Your task to perform on an android device: Open Reddit.com Image 0: 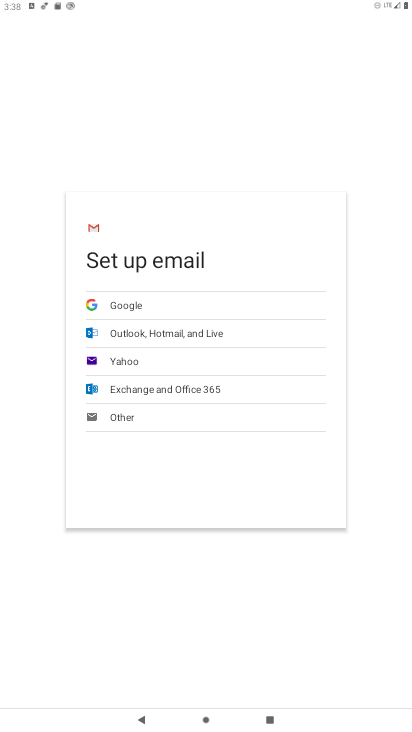
Step 0: press home button
Your task to perform on an android device: Open Reddit.com Image 1: 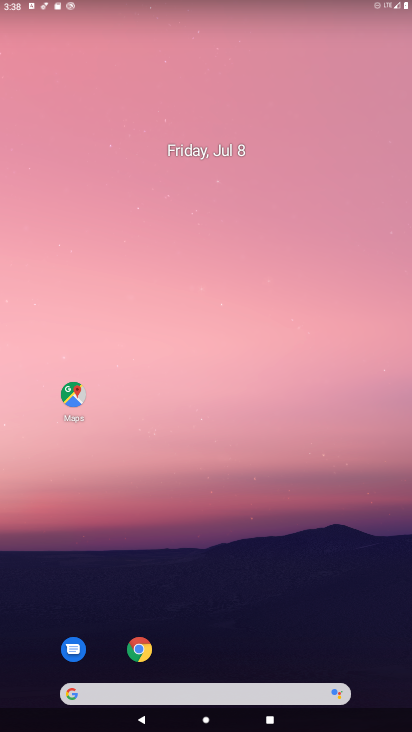
Step 1: click (140, 650)
Your task to perform on an android device: Open Reddit.com Image 2: 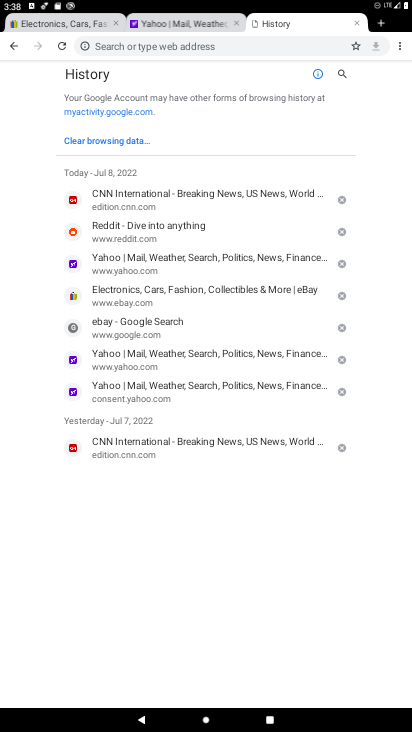
Step 2: press back button
Your task to perform on an android device: Open Reddit.com Image 3: 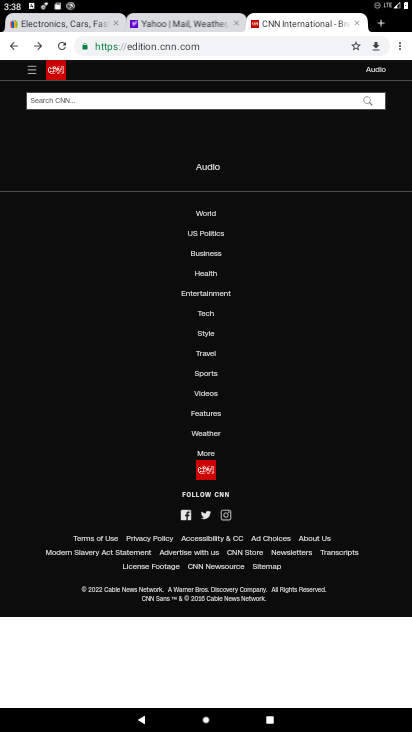
Step 3: click (222, 43)
Your task to perform on an android device: Open Reddit.com Image 4: 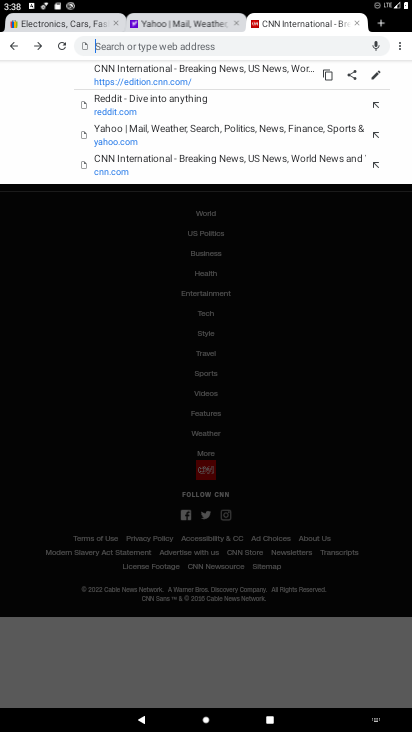
Step 4: type "Reddit.com"
Your task to perform on an android device: Open Reddit.com Image 5: 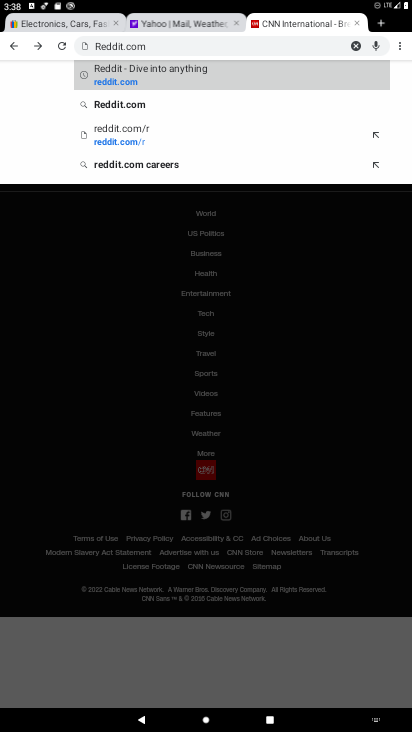
Step 5: click (129, 66)
Your task to perform on an android device: Open Reddit.com Image 6: 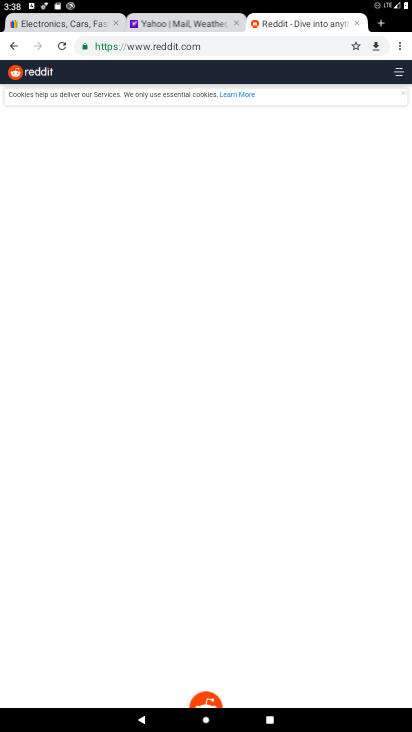
Step 6: task complete